Your task to perform on an android device: change alarm snooze length Image 0: 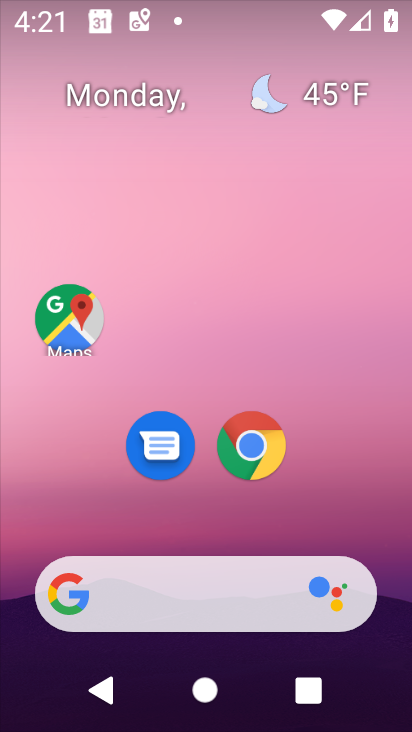
Step 0: drag from (324, 520) to (285, 2)
Your task to perform on an android device: change alarm snooze length Image 1: 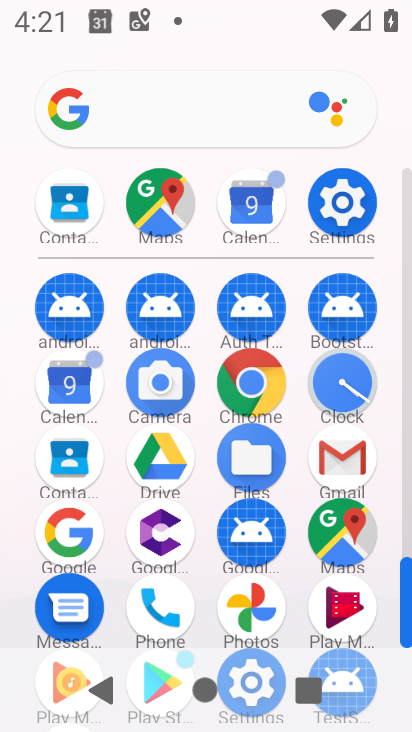
Step 1: click (353, 382)
Your task to perform on an android device: change alarm snooze length Image 2: 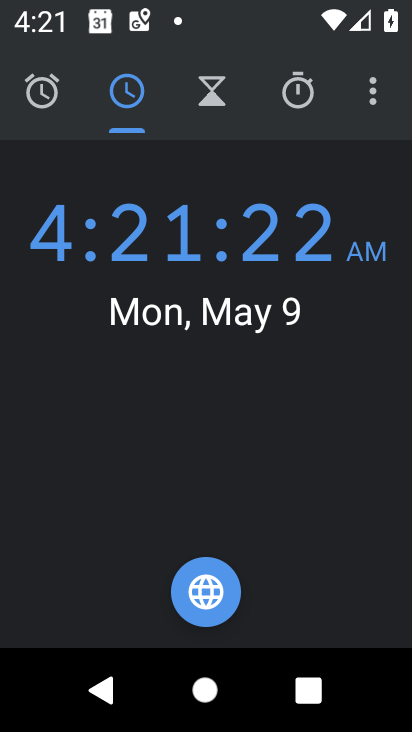
Step 2: click (380, 103)
Your task to perform on an android device: change alarm snooze length Image 3: 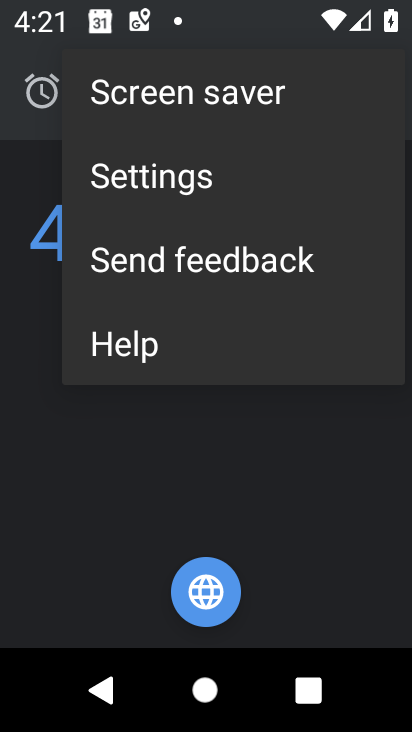
Step 3: click (245, 191)
Your task to perform on an android device: change alarm snooze length Image 4: 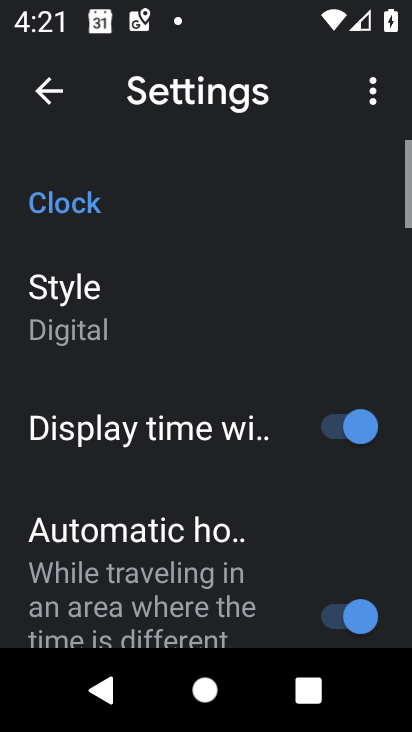
Step 4: drag from (241, 538) to (250, 145)
Your task to perform on an android device: change alarm snooze length Image 5: 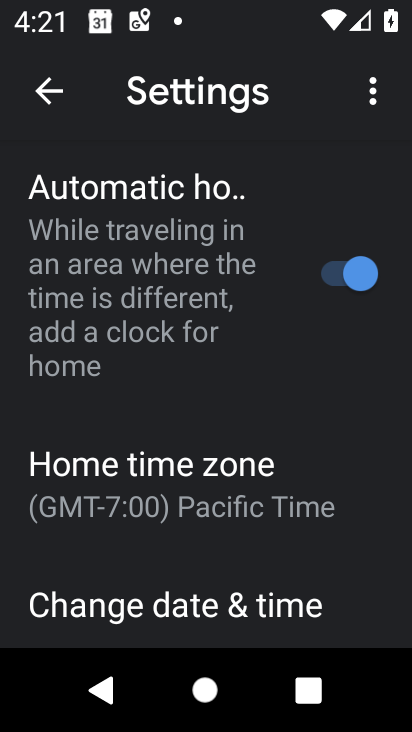
Step 5: drag from (206, 530) to (164, 154)
Your task to perform on an android device: change alarm snooze length Image 6: 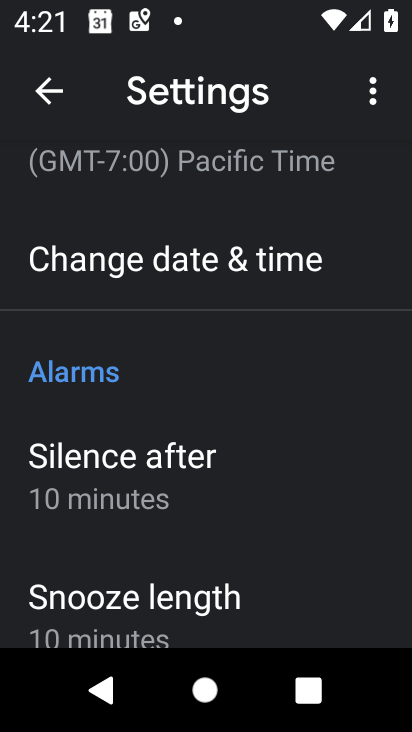
Step 6: drag from (109, 528) to (129, 192)
Your task to perform on an android device: change alarm snooze length Image 7: 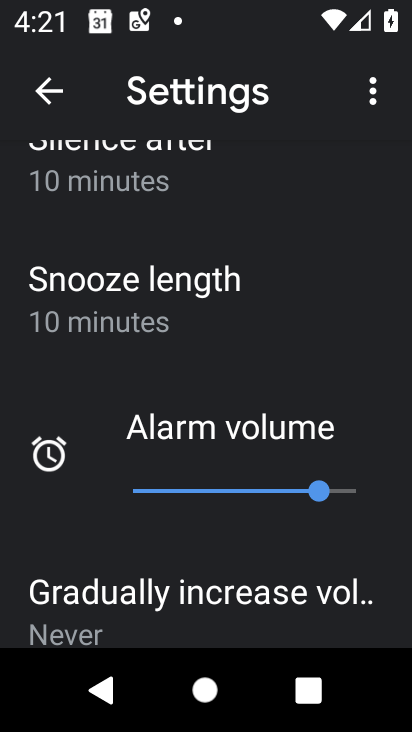
Step 7: click (137, 328)
Your task to perform on an android device: change alarm snooze length Image 8: 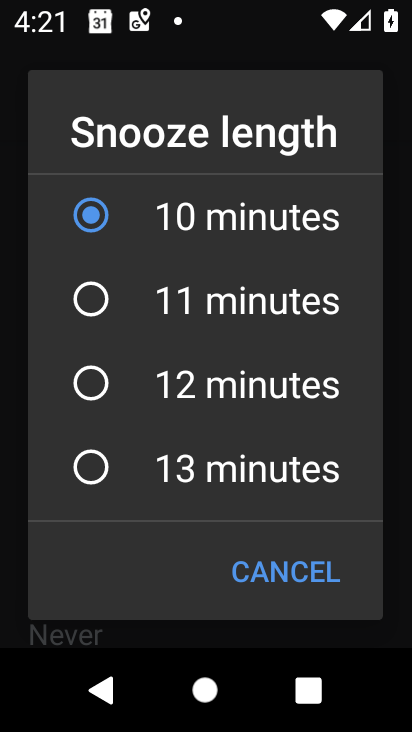
Step 8: click (165, 307)
Your task to perform on an android device: change alarm snooze length Image 9: 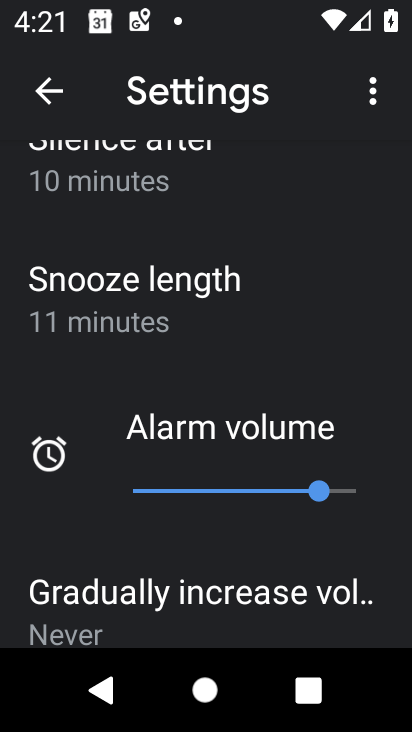
Step 9: task complete